Your task to perform on an android device: turn off javascript in the chrome app Image 0: 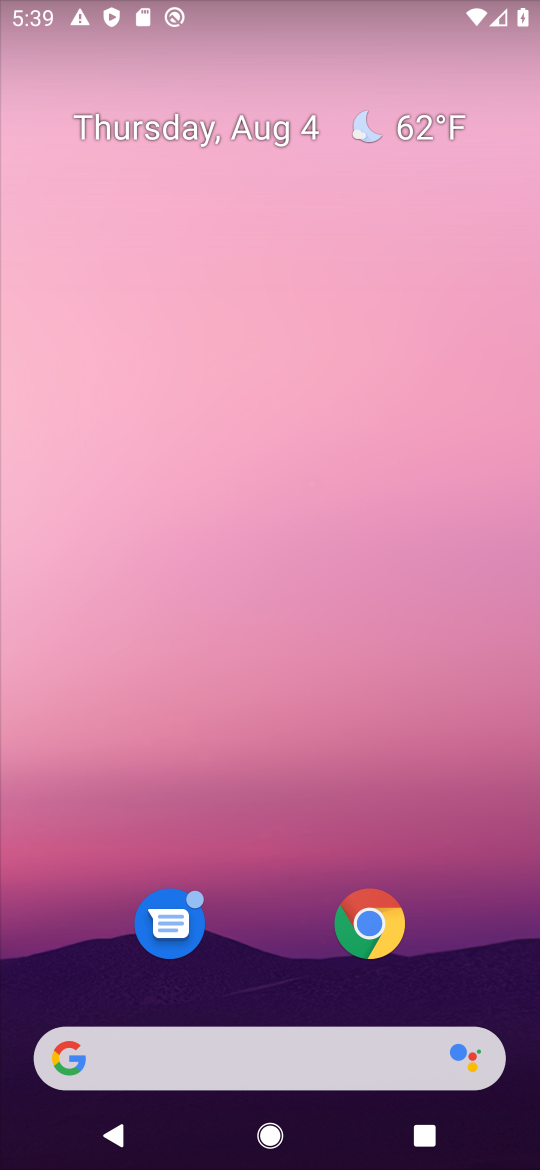
Step 0: click (395, 930)
Your task to perform on an android device: turn off javascript in the chrome app Image 1: 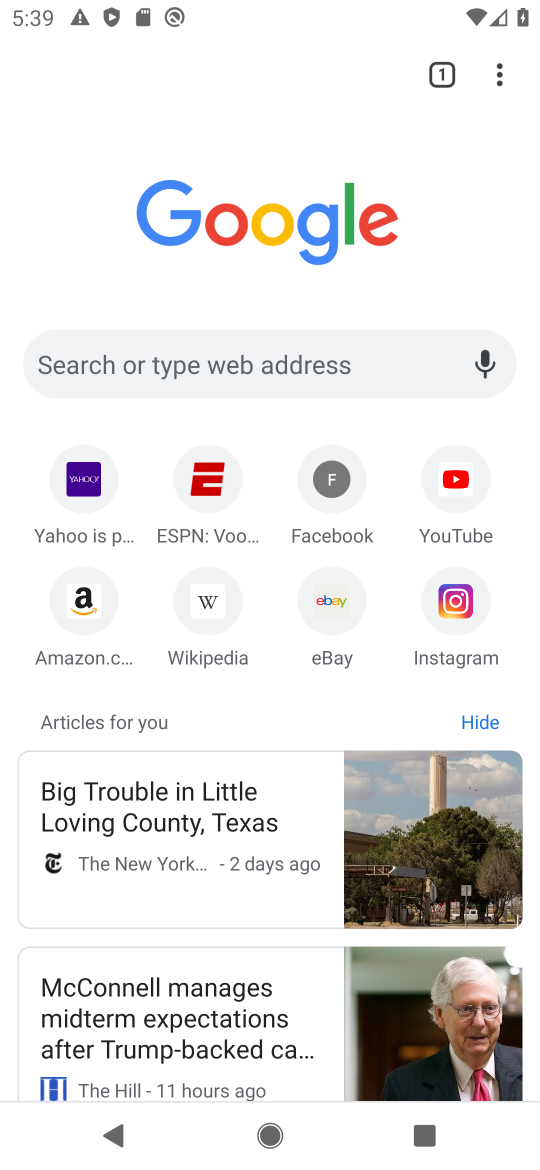
Step 1: click (504, 65)
Your task to perform on an android device: turn off javascript in the chrome app Image 2: 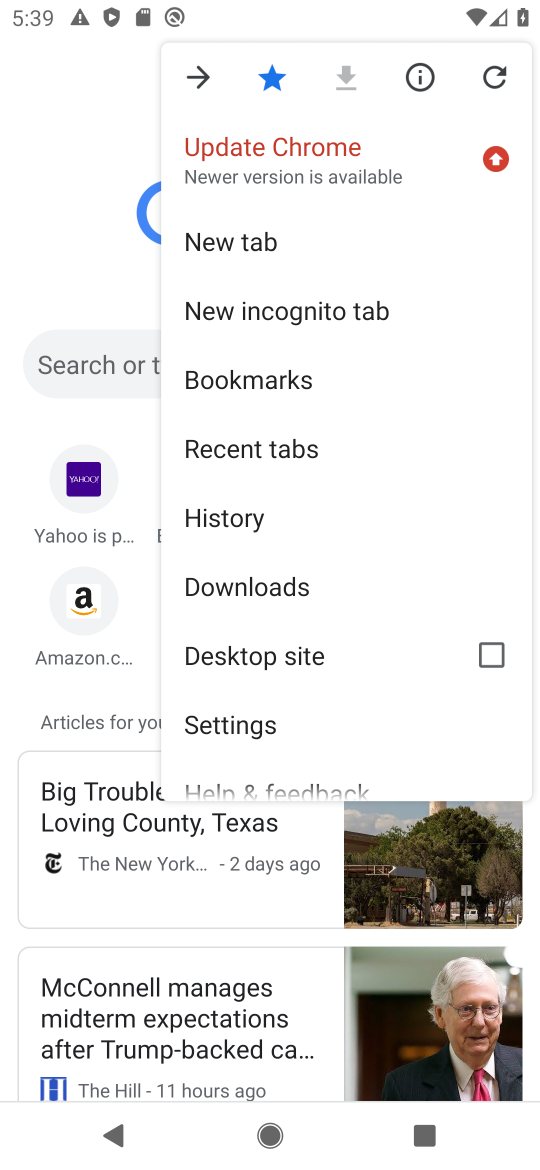
Step 2: click (256, 721)
Your task to perform on an android device: turn off javascript in the chrome app Image 3: 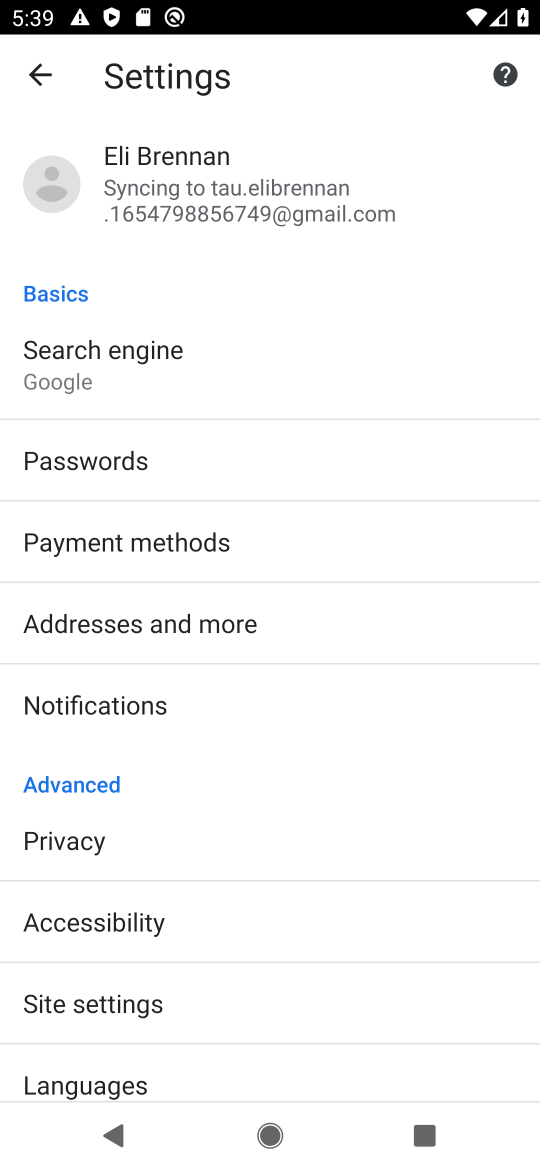
Step 3: click (220, 994)
Your task to perform on an android device: turn off javascript in the chrome app Image 4: 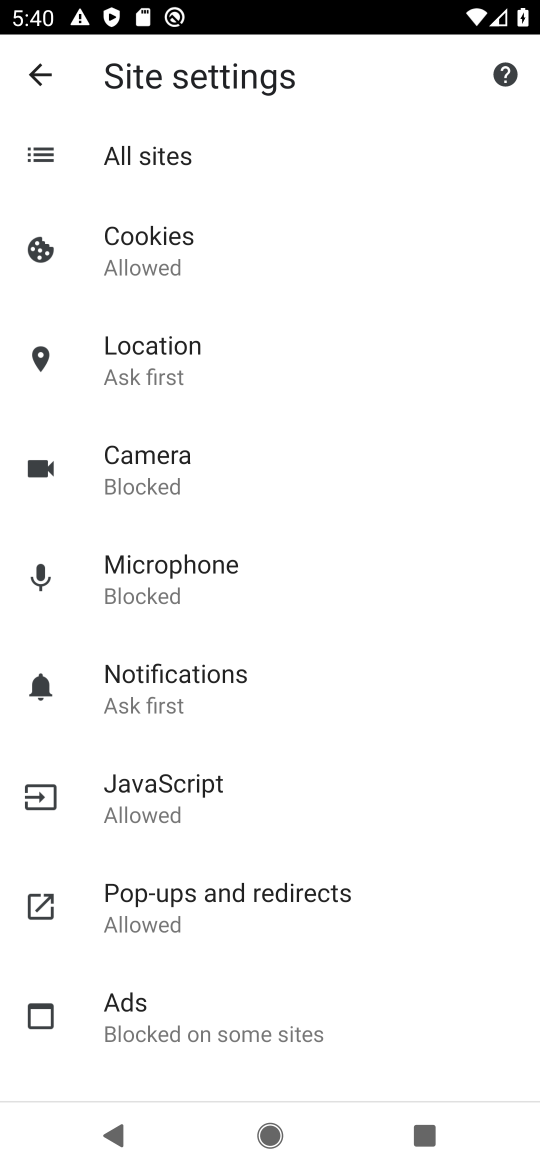
Step 4: click (171, 811)
Your task to perform on an android device: turn off javascript in the chrome app Image 5: 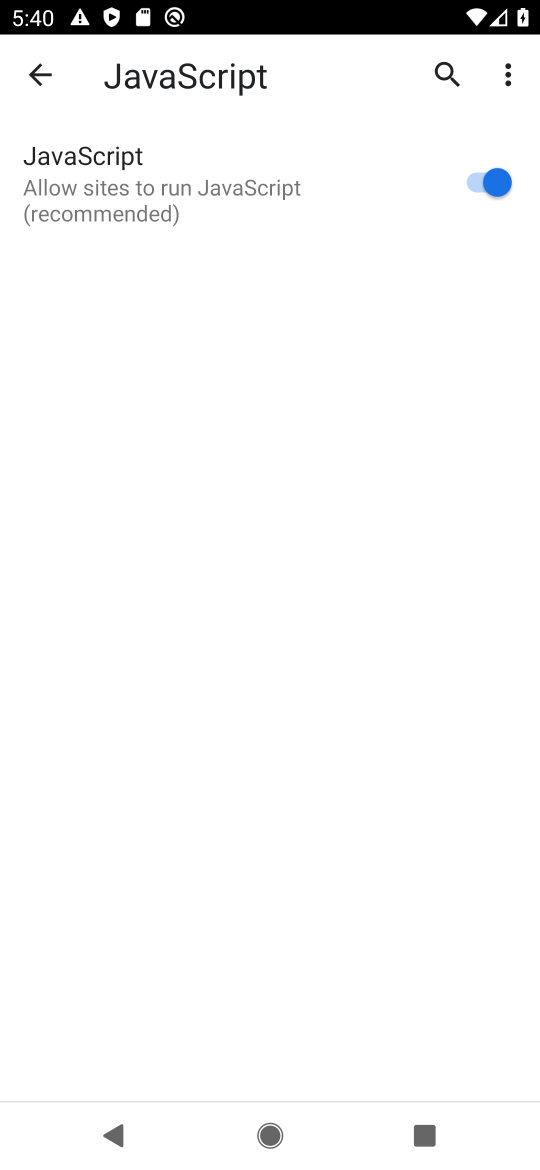
Step 5: click (506, 170)
Your task to perform on an android device: turn off javascript in the chrome app Image 6: 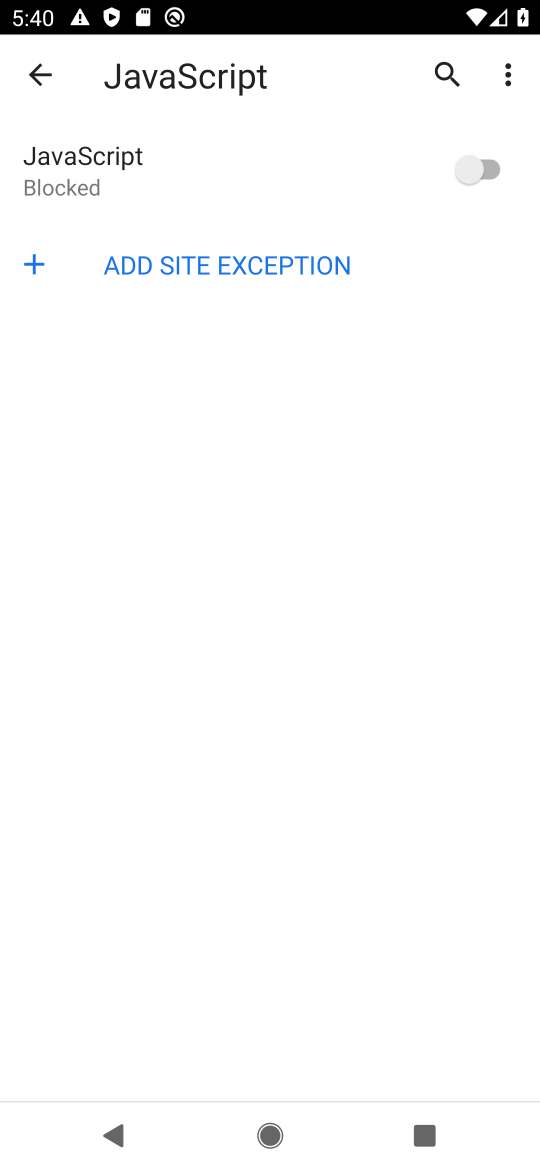
Step 6: task complete